Your task to perform on an android device: Open Google Chrome and open the bookmarks view Image 0: 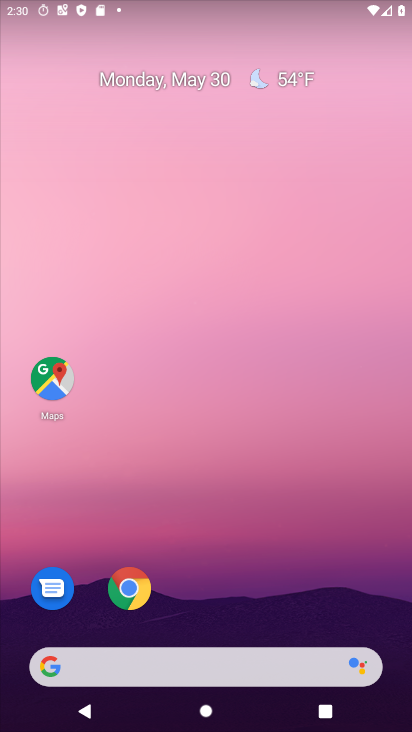
Step 0: click (131, 591)
Your task to perform on an android device: Open Google Chrome and open the bookmarks view Image 1: 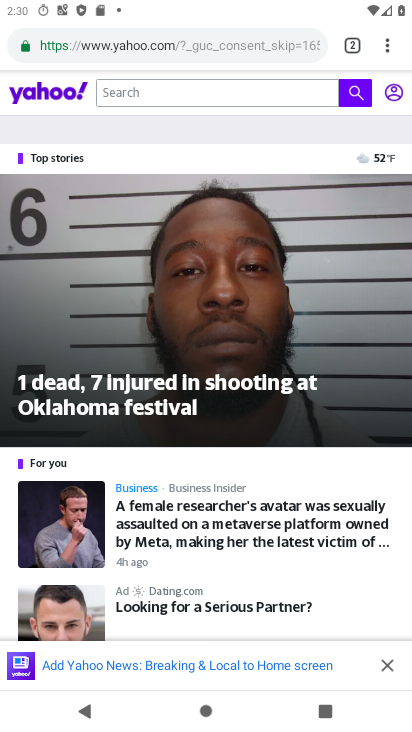
Step 1: click (381, 46)
Your task to perform on an android device: Open Google Chrome and open the bookmarks view Image 2: 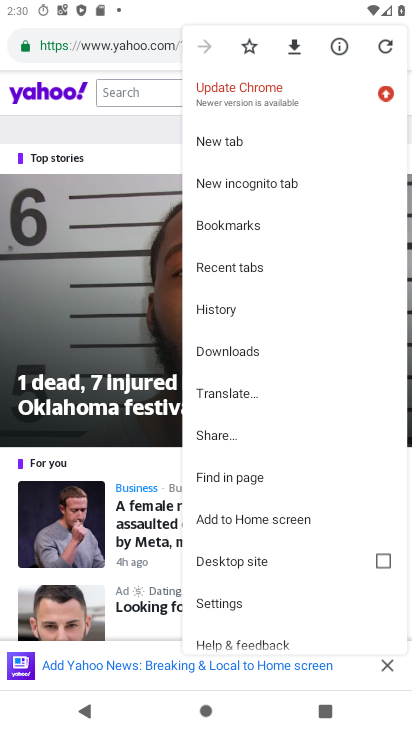
Step 2: drag from (266, 525) to (270, 334)
Your task to perform on an android device: Open Google Chrome and open the bookmarks view Image 3: 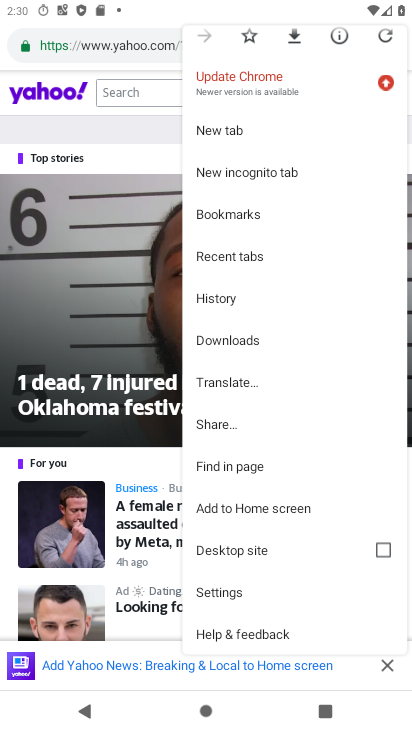
Step 3: click (251, 218)
Your task to perform on an android device: Open Google Chrome and open the bookmarks view Image 4: 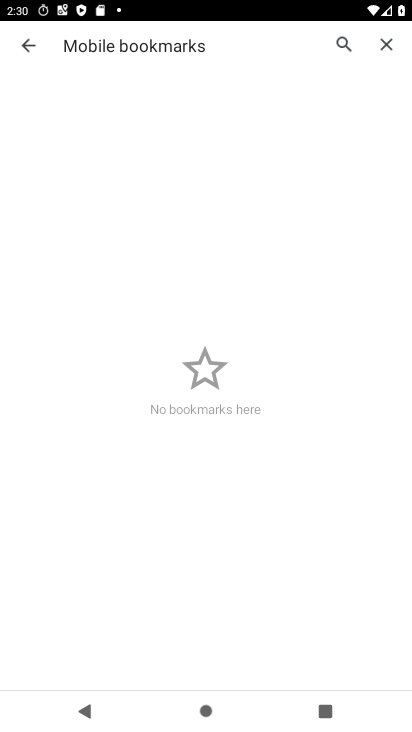
Step 4: task complete